Your task to perform on an android device: check storage Image 0: 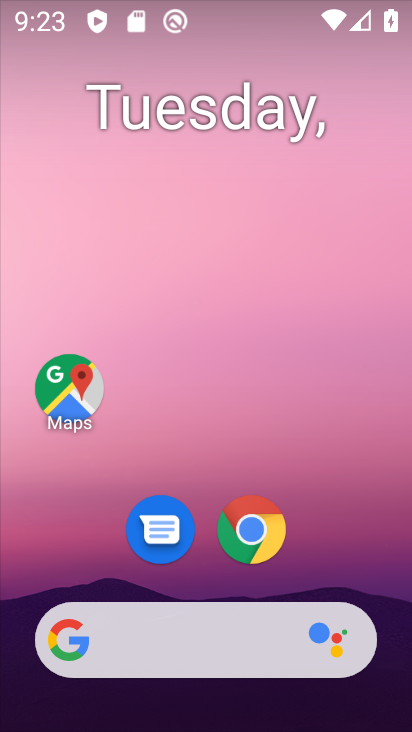
Step 0: drag from (199, 584) to (234, 233)
Your task to perform on an android device: check storage Image 1: 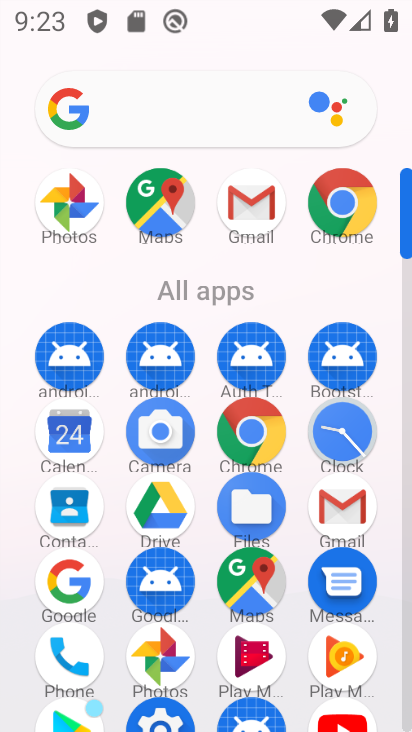
Step 1: drag from (202, 514) to (173, 229)
Your task to perform on an android device: check storage Image 2: 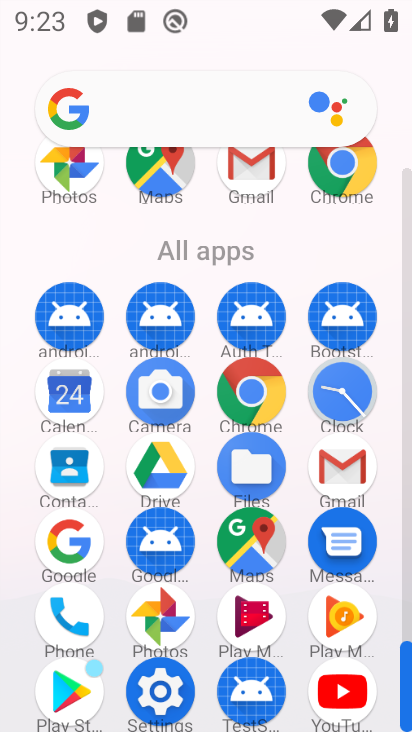
Step 2: click (157, 695)
Your task to perform on an android device: check storage Image 3: 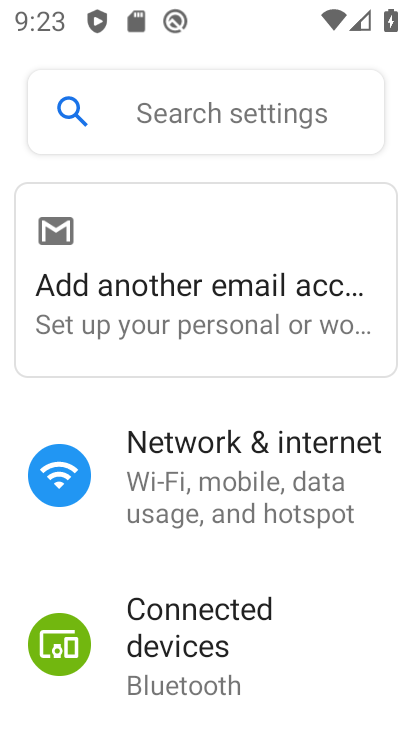
Step 3: drag from (336, 639) to (282, 224)
Your task to perform on an android device: check storage Image 4: 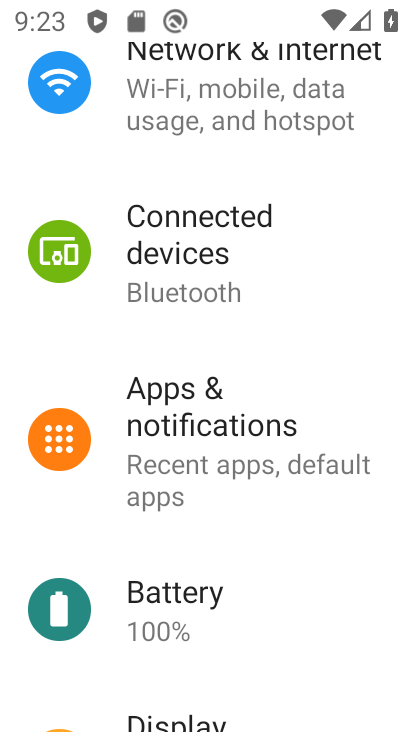
Step 4: drag from (266, 634) to (323, 195)
Your task to perform on an android device: check storage Image 5: 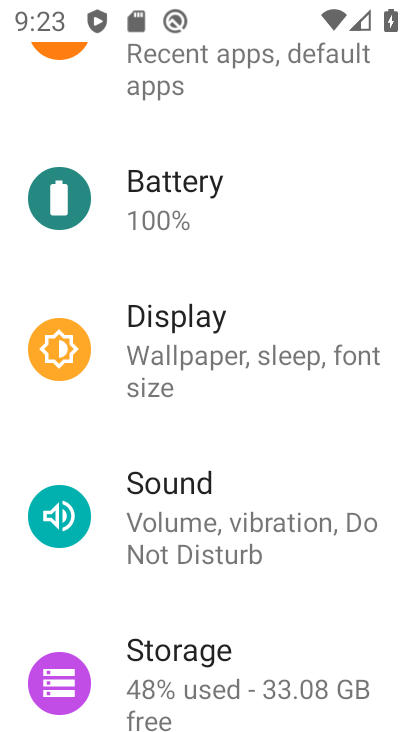
Step 5: click (242, 662)
Your task to perform on an android device: check storage Image 6: 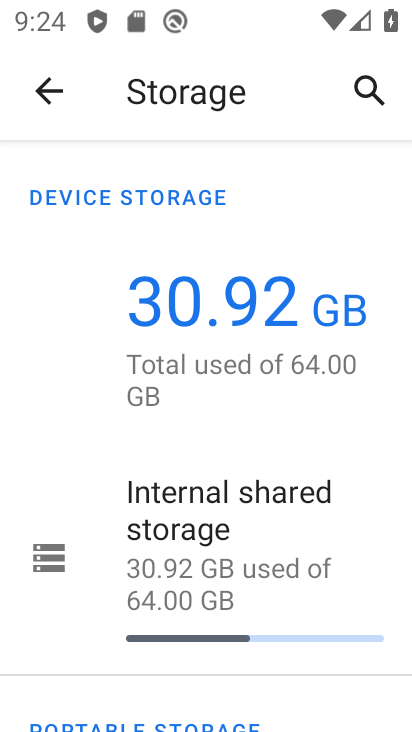
Step 6: task complete